Your task to perform on an android device: show emergency info Image 0: 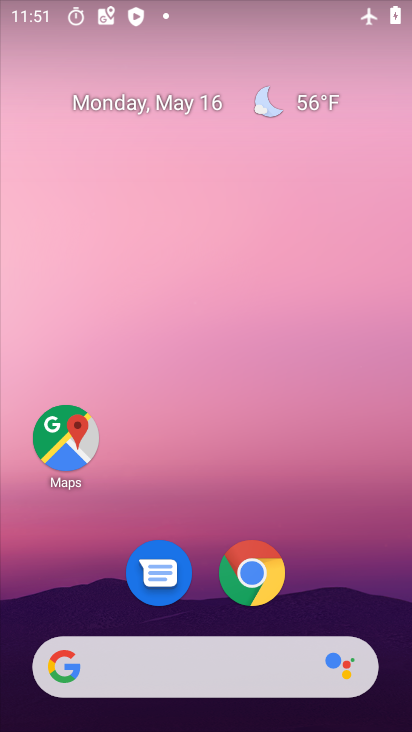
Step 0: drag from (241, 656) to (297, 69)
Your task to perform on an android device: show emergency info Image 1: 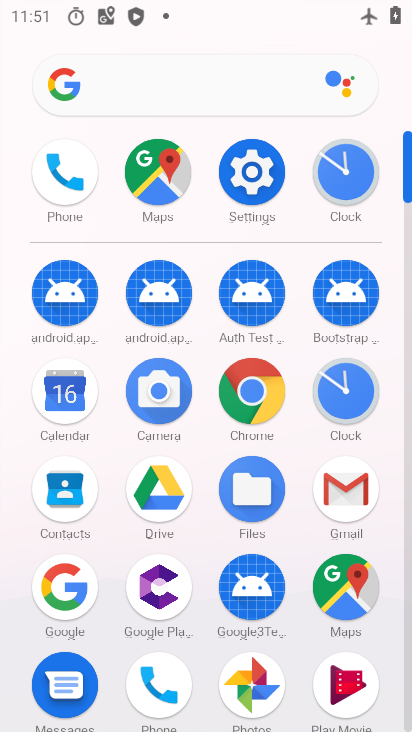
Step 1: click (250, 170)
Your task to perform on an android device: show emergency info Image 2: 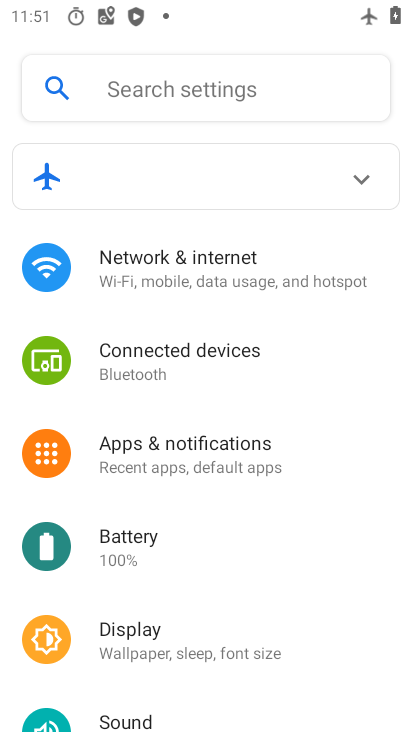
Step 2: drag from (323, 669) to (296, 62)
Your task to perform on an android device: show emergency info Image 3: 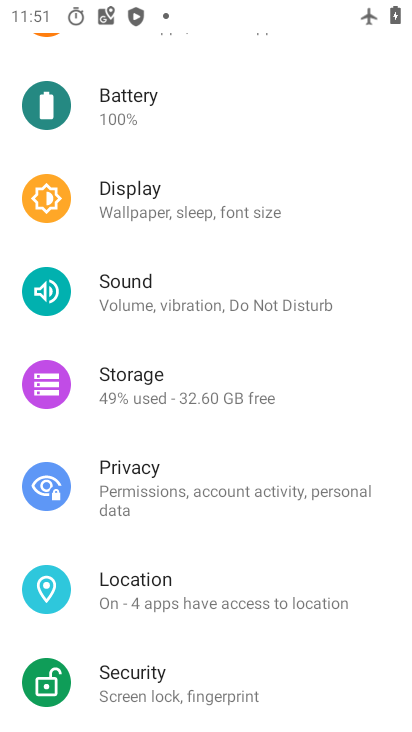
Step 3: drag from (198, 706) to (214, 61)
Your task to perform on an android device: show emergency info Image 4: 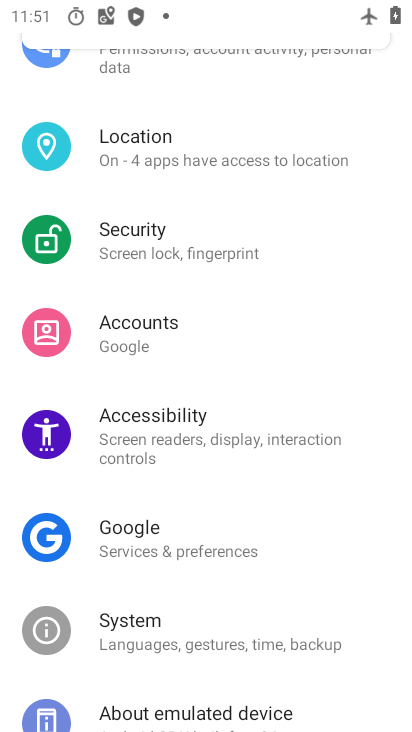
Step 4: click (223, 727)
Your task to perform on an android device: show emergency info Image 5: 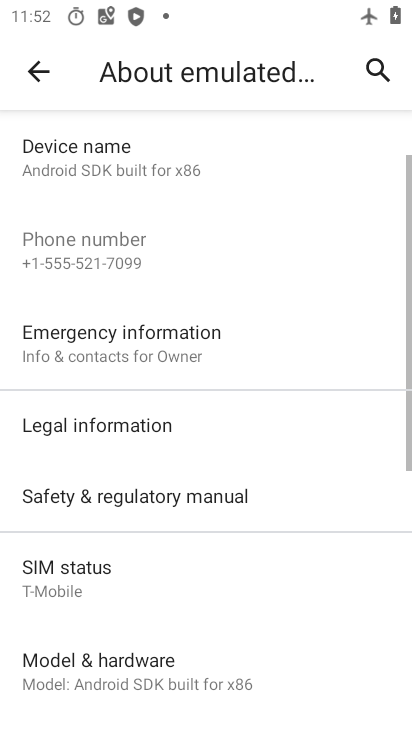
Step 5: click (215, 350)
Your task to perform on an android device: show emergency info Image 6: 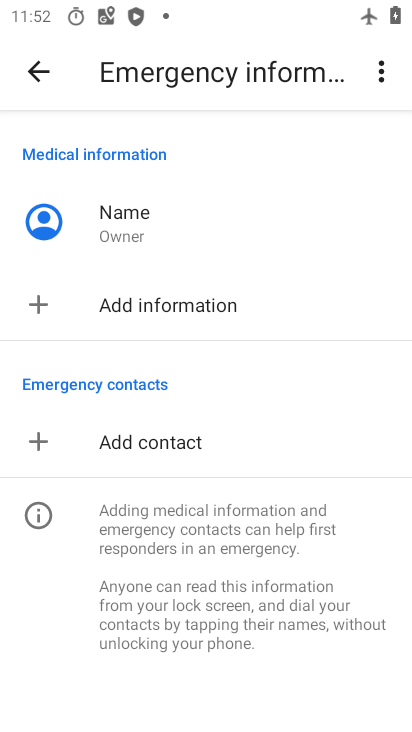
Step 6: task complete